Your task to perform on an android device: Turn on the flashlight Image 0: 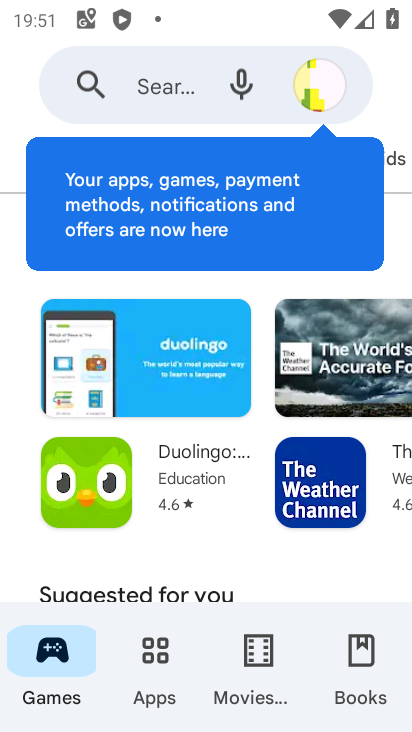
Step 0: press home button
Your task to perform on an android device: Turn on the flashlight Image 1: 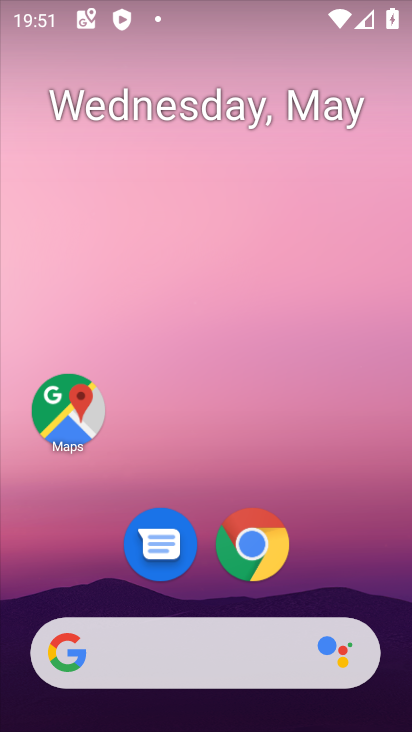
Step 1: click (231, 22)
Your task to perform on an android device: Turn on the flashlight Image 2: 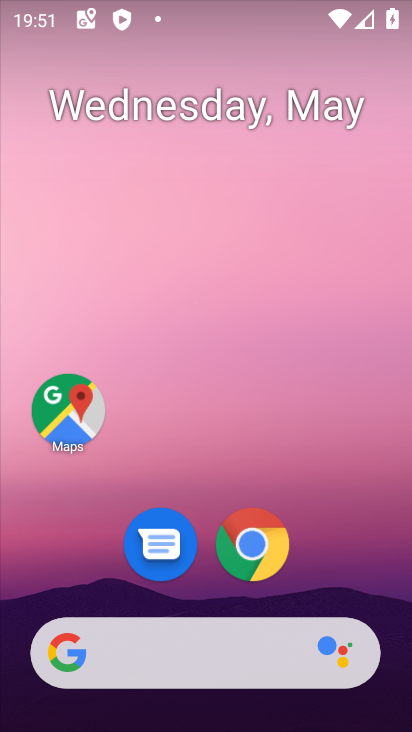
Step 2: drag from (209, 581) to (232, 49)
Your task to perform on an android device: Turn on the flashlight Image 3: 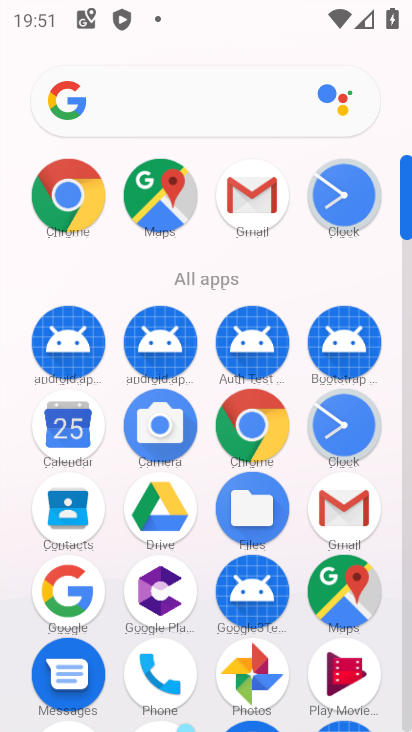
Step 3: drag from (215, 640) to (213, 281)
Your task to perform on an android device: Turn on the flashlight Image 4: 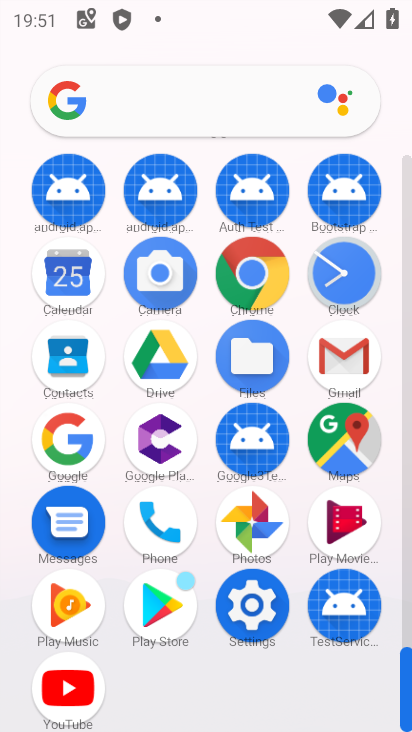
Step 4: click (261, 594)
Your task to perform on an android device: Turn on the flashlight Image 5: 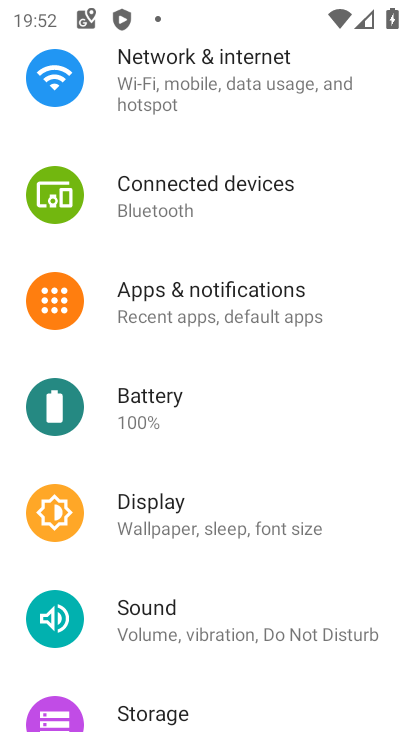
Step 5: task complete